Your task to perform on an android device: toggle improve location accuracy Image 0: 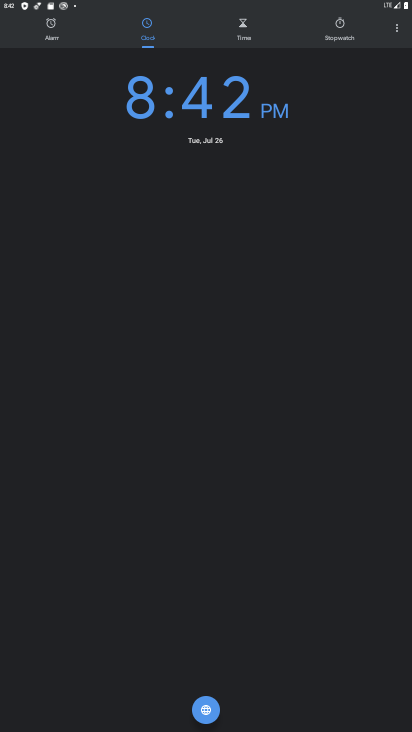
Step 0: press home button
Your task to perform on an android device: toggle improve location accuracy Image 1: 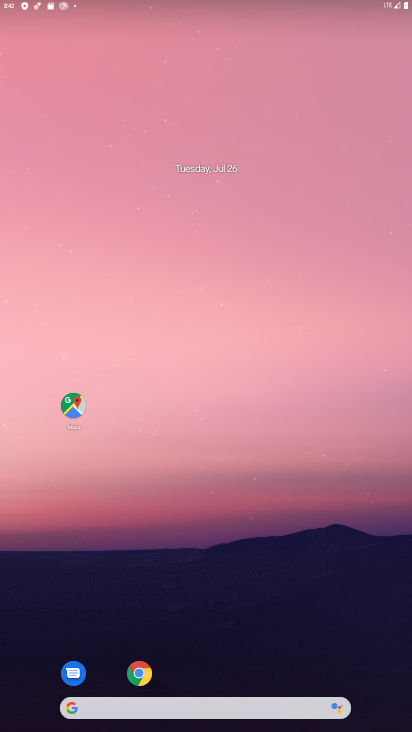
Step 1: drag from (208, 502) to (238, 209)
Your task to perform on an android device: toggle improve location accuracy Image 2: 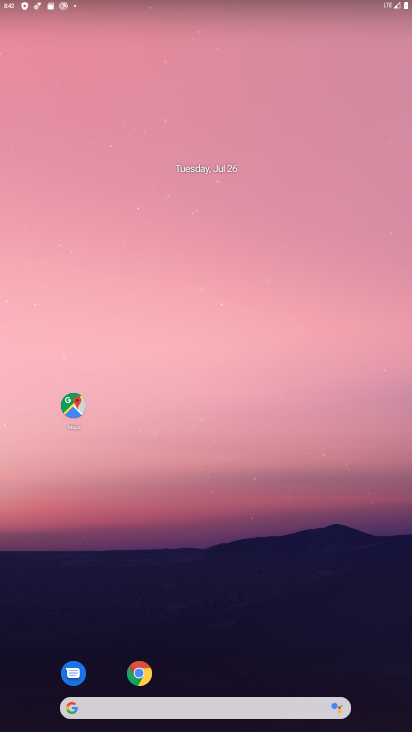
Step 2: drag from (282, 697) to (273, 160)
Your task to perform on an android device: toggle improve location accuracy Image 3: 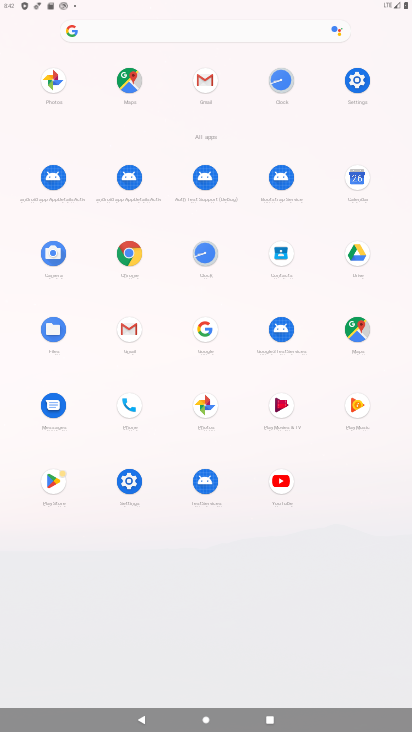
Step 3: click (352, 74)
Your task to perform on an android device: toggle improve location accuracy Image 4: 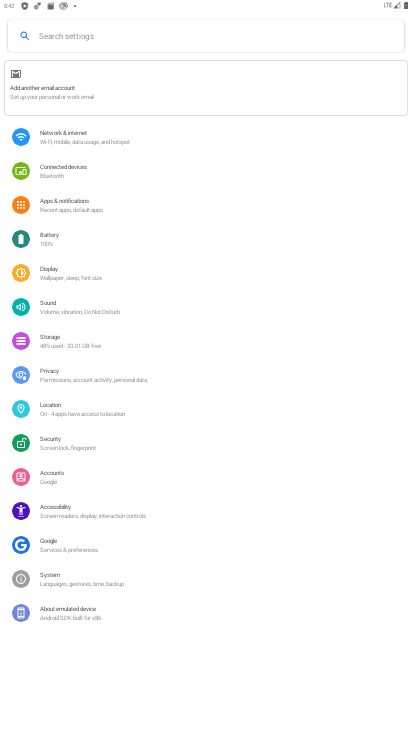
Step 4: click (55, 404)
Your task to perform on an android device: toggle improve location accuracy Image 5: 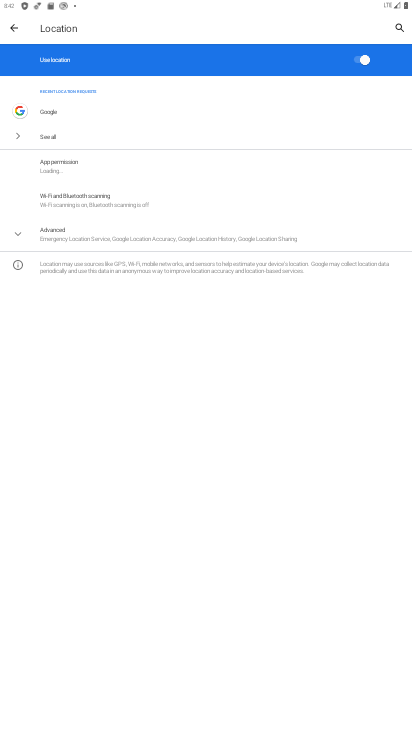
Step 5: click (119, 233)
Your task to perform on an android device: toggle improve location accuracy Image 6: 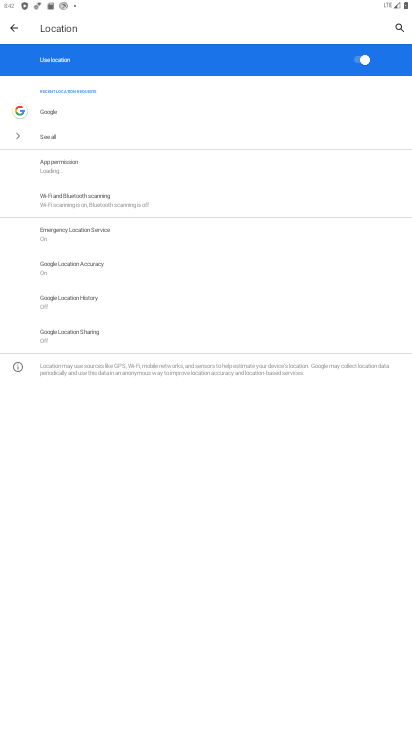
Step 6: click (117, 268)
Your task to perform on an android device: toggle improve location accuracy Image 7: 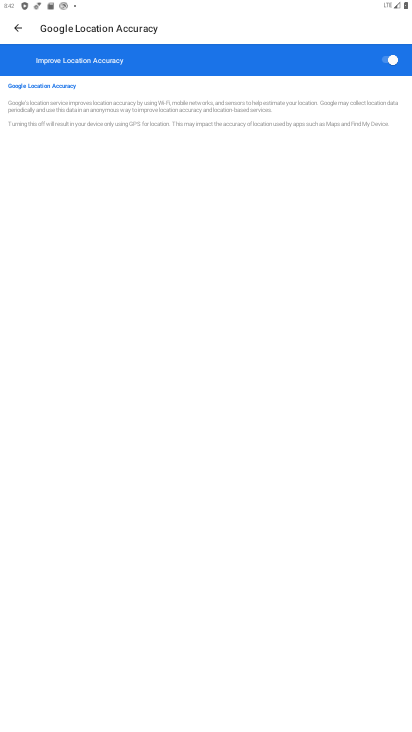
Step 7: click (387, 63)
Your task to perform on an android device: toggle improve location accuracy Image 8: 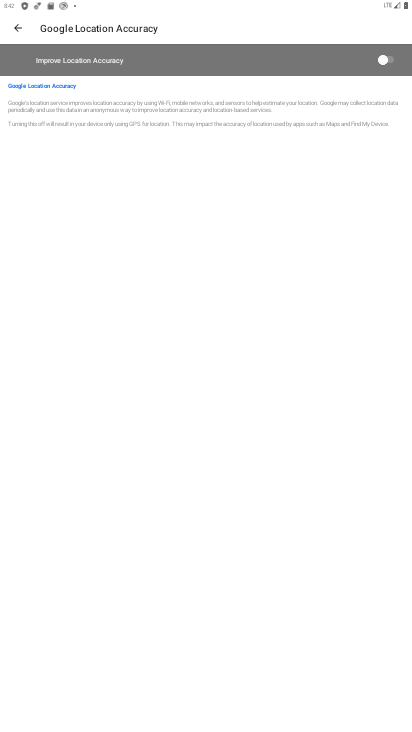
Step 8: task complete